Your task to perform on an android device: Set the phone to "Do not disturb". Image 0: 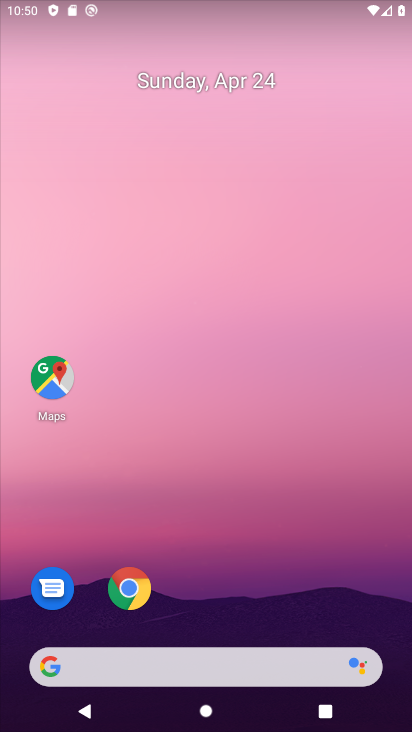
Step 0: drag from (158, 665) to (217, 146)
Your task to perform on an android device: Set the phone to "Do not disturb". Image 1: 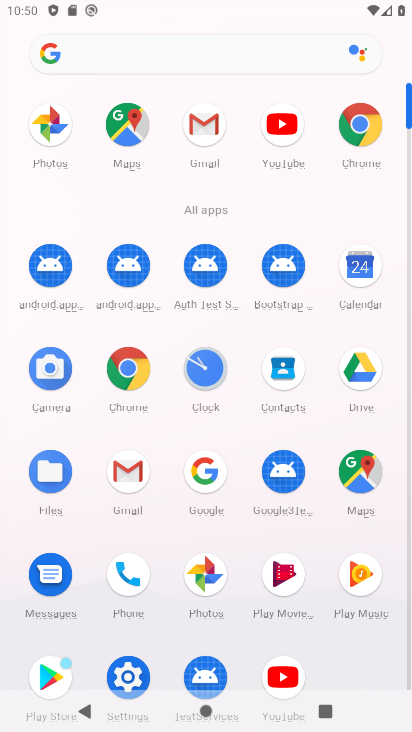
Step 1: click (110, 675)
Your task to perform on an android device: Set the phone to "Do not disturb". Image 2: 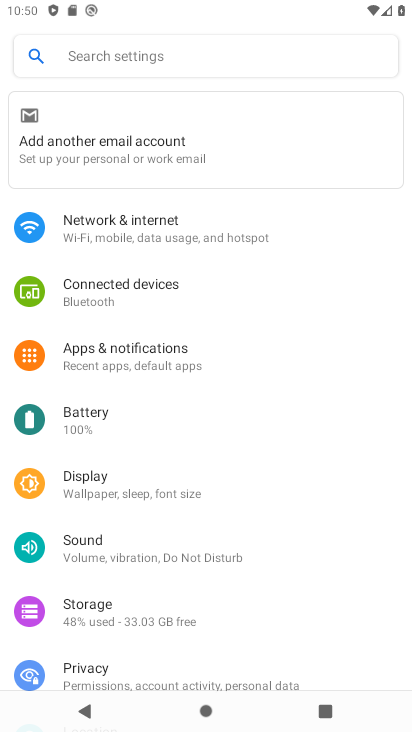
Step 2: click (119, 549)
Your task to perform on an android device: Set the phone to "Do not disturb". Image 3: 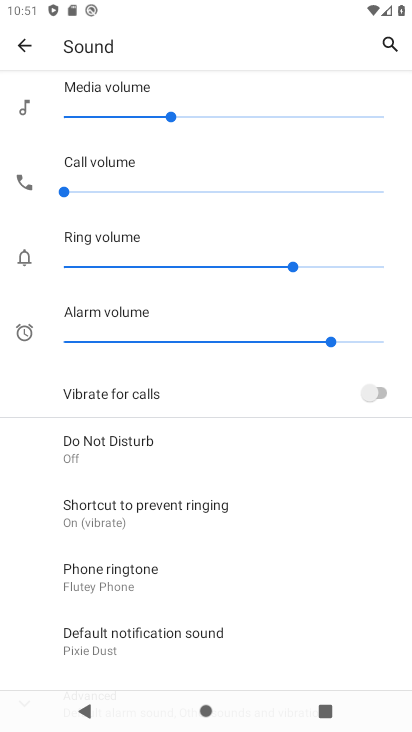
Step 3: click (108, 449)
Your task to perform on an android device: Set the phone to "Do not disturb". Image 4: 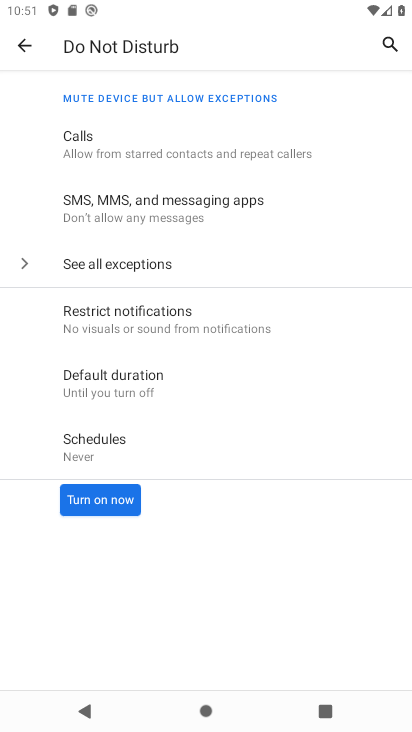
Step 4: click (118, 508)
Your task to perform on an android device: Set the phone to "Do not disturb". Image 5: 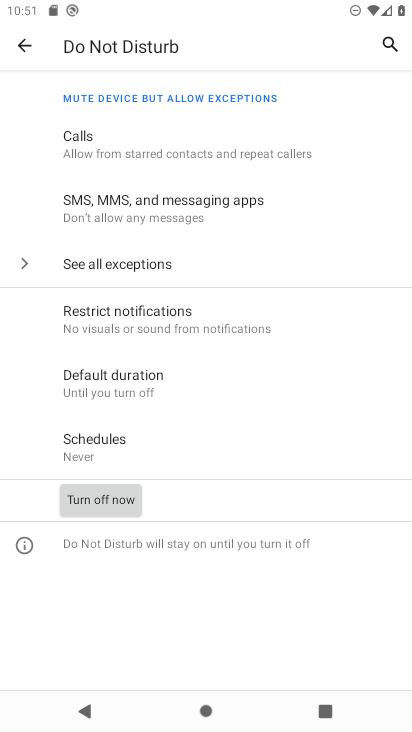
Step 5: task complete